Your task to perform on an android device: see tabs open on other devices in the chrome app Image 0: 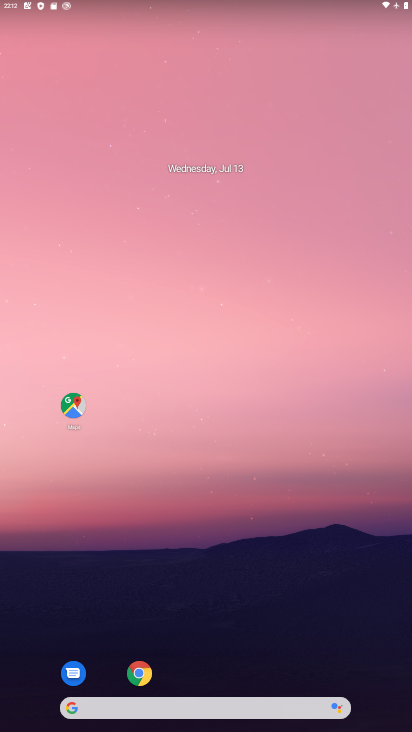
Step 0: click (142, 653)
Your task to perform on an android device: see tabs open on other devices in the chrome app Image 1: 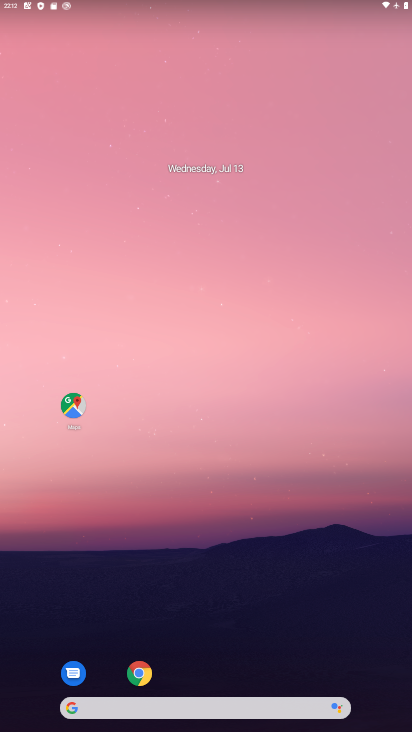
Step 1: click (138, 676)
Your task to perform on an android device: see tabs open on other devices in the chrome app Image 2: 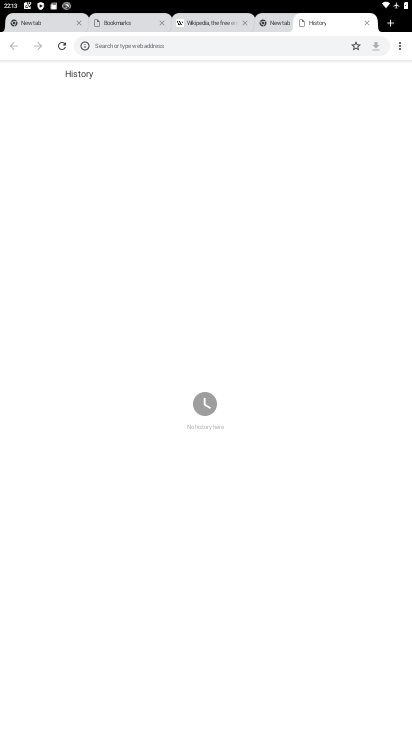
Step 2: click (398, 42)
Your task to perform on an android device: see tabs open on other devices in the chrome app Image 3: 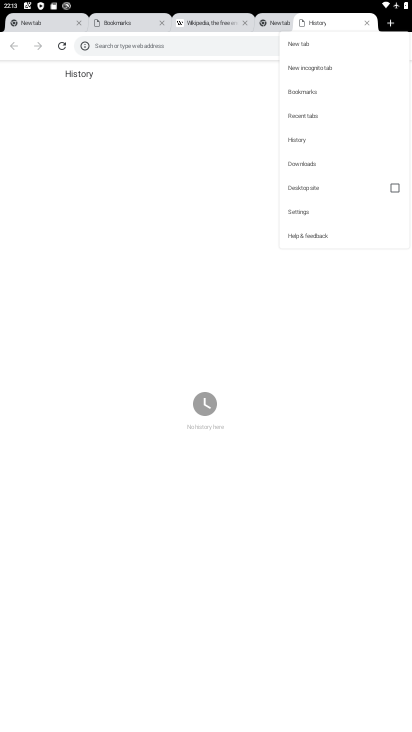
Step 3: click (326, 118)
Your task to perform on an android device: see tabs open on other devices in the chrome app Image 4: 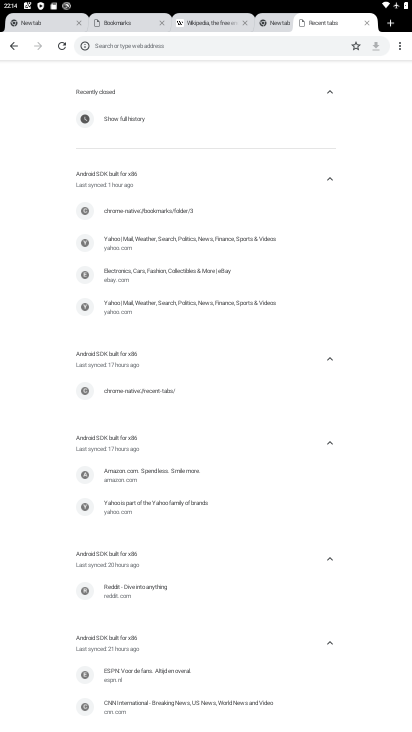
Step 4: task complete